Your task to perform on an android device: Go to eBay Image 0: 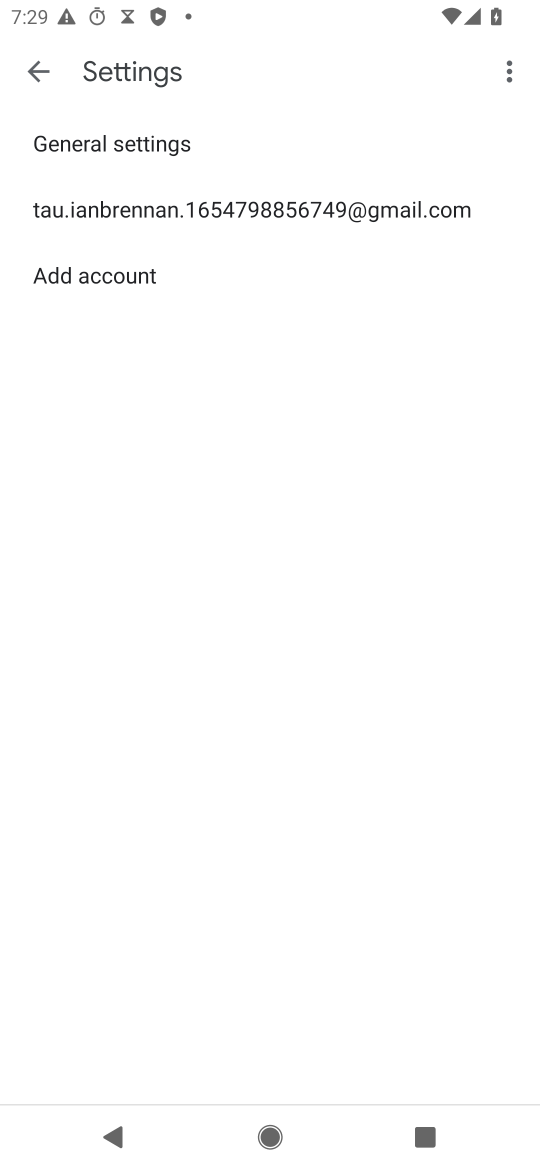
Step 0: press home button
Your task to perform on an android device: Go to eBay Image 1: 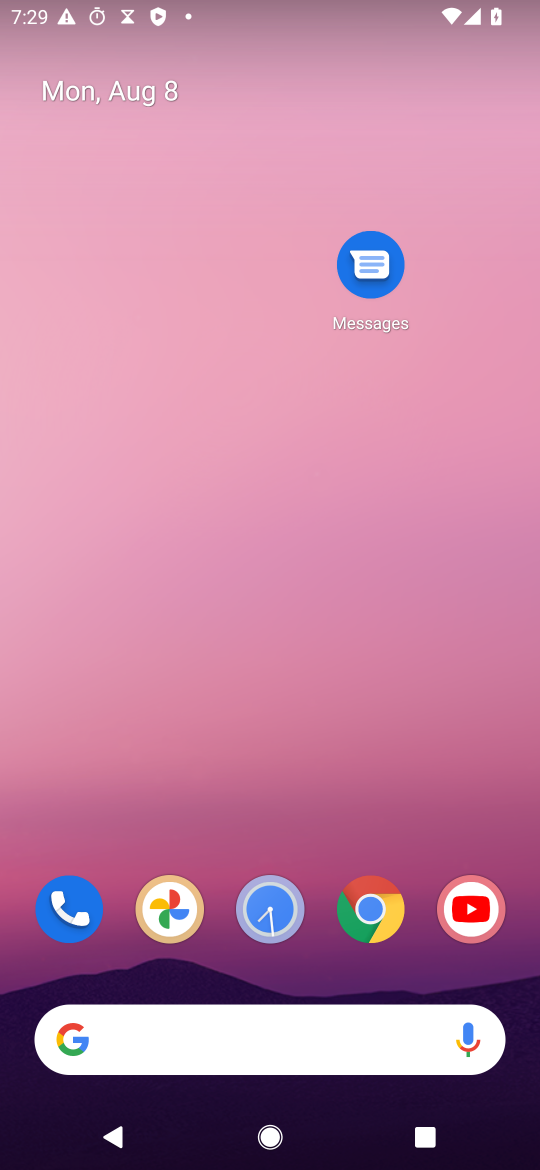
Step 1: drag from (258, 1059) to (415, 264)
Your task to perform on an android device: Go to eBay Image 2: 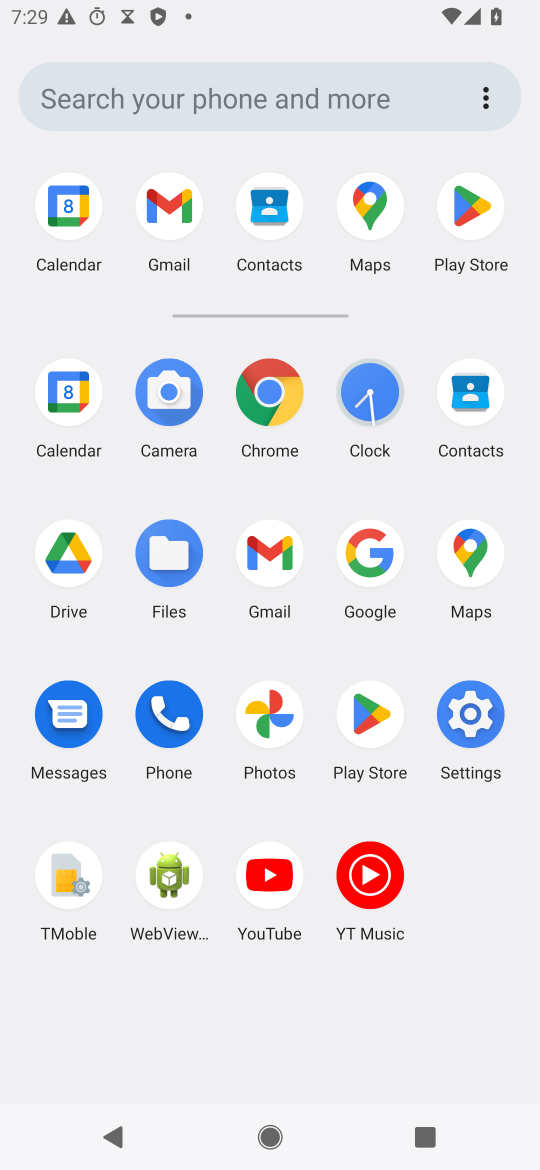
Step 2: click (267, 401)
Your task to perform on an android device: Go to eBay Image 3: 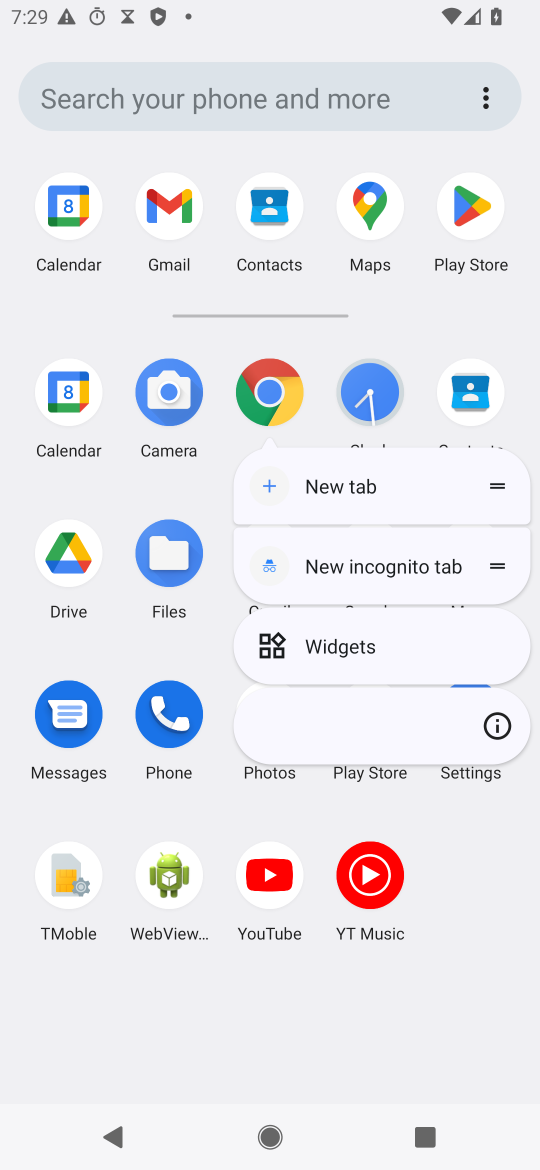
Step 3: click (267, 403)
Your task to perform on an android device: Go to eBay Image 4: 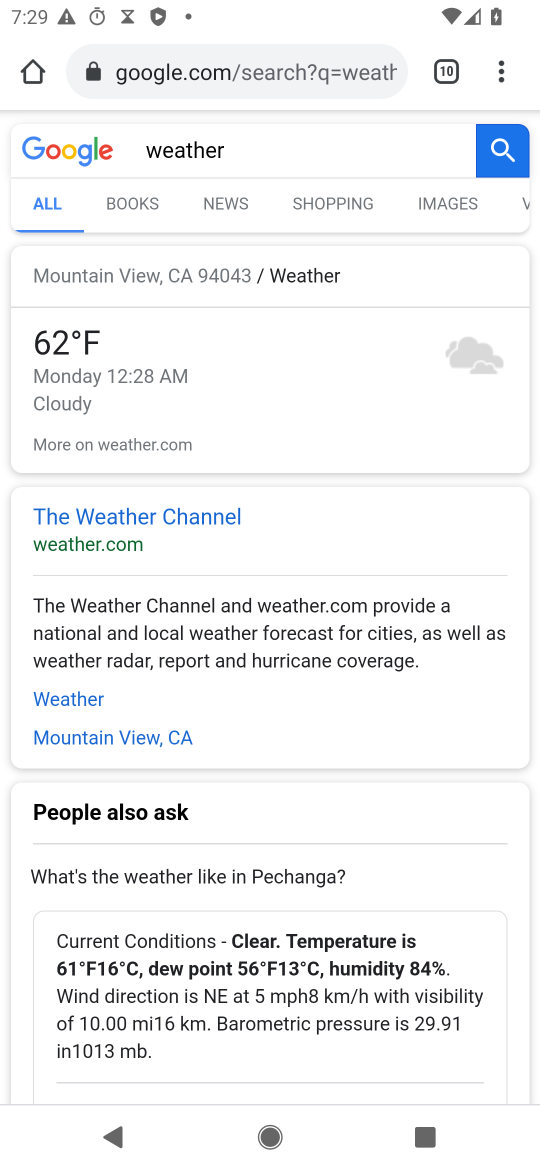
Step 4: drag from (494, 69) to (304, 230)
Your task to perform on an android device: Go to eBay Image 5: 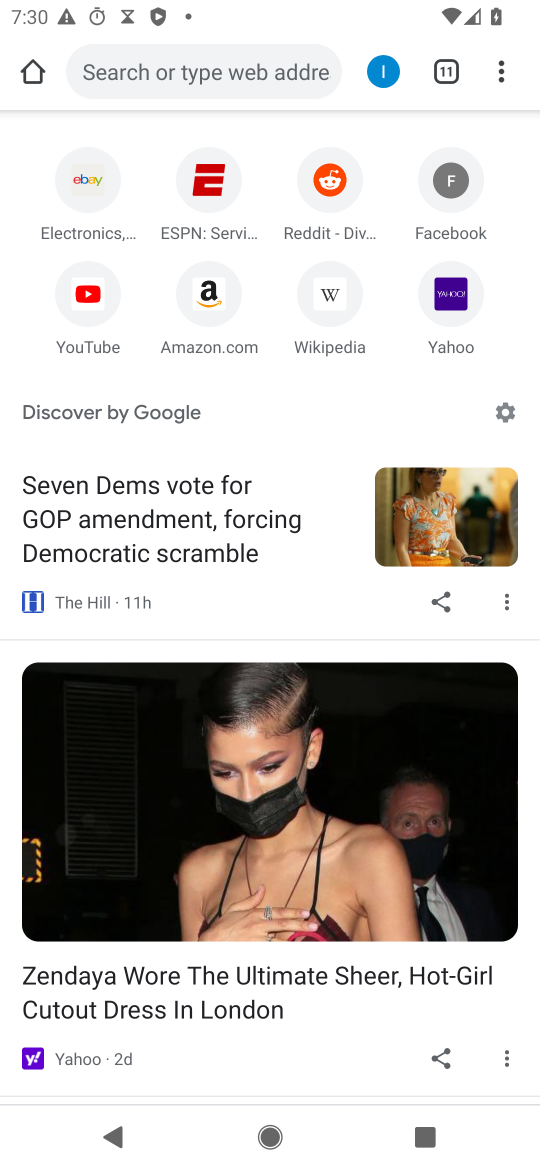
Step 5: click (82, 180)
Your task to perform on an android device: Go to eBay Image 6: 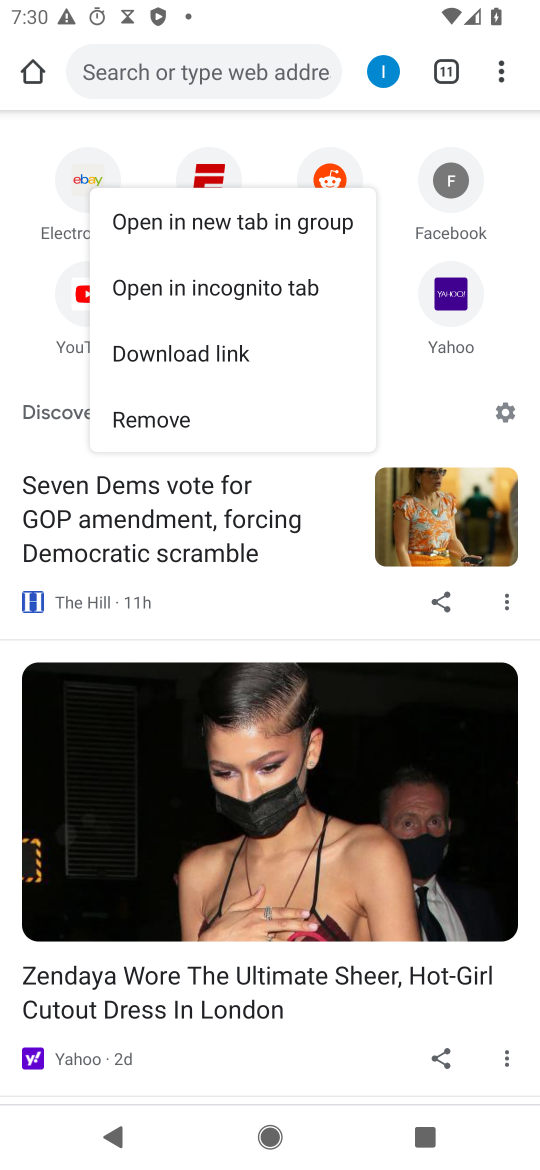
Step 6: click (82, 179)
Your task to perform on an android device: Go to eBay Image 7: 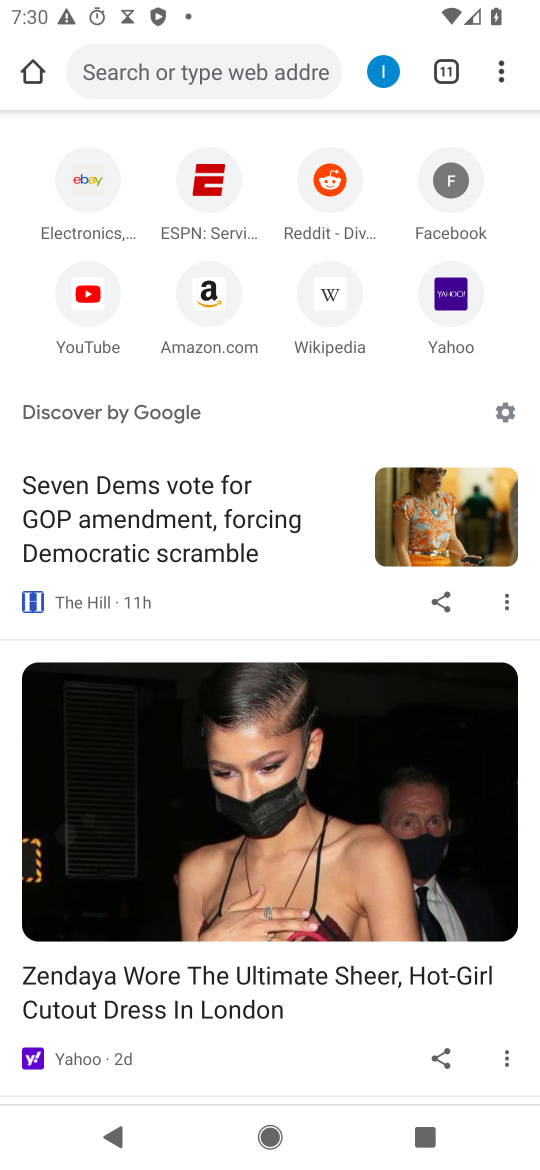
Step 7: click (82, 179)
Your task to perform on an android device: Go to eBay Image 8: 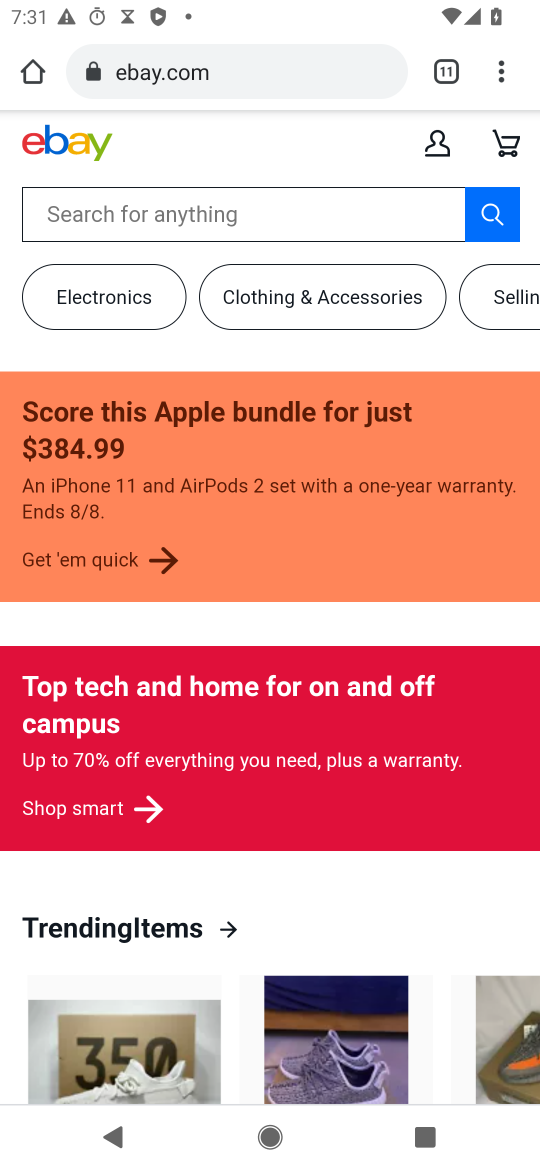
Step 8: task complete